Your task to perform on an android device: What's on my calendar today? Image 0: 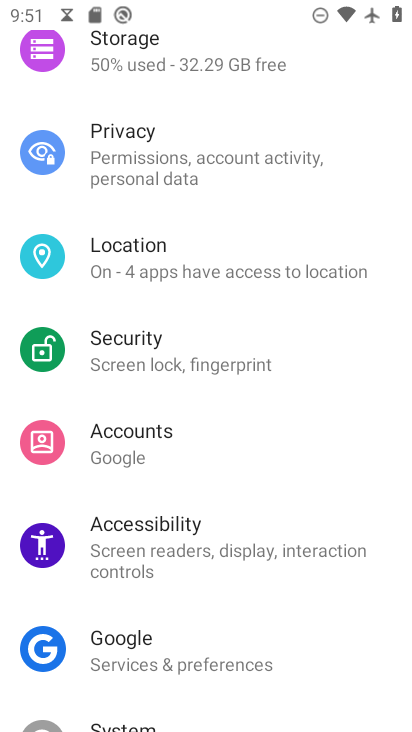
Step 0: press home button
Your task to perform on an android device: What's on my calendar today? Image 1: 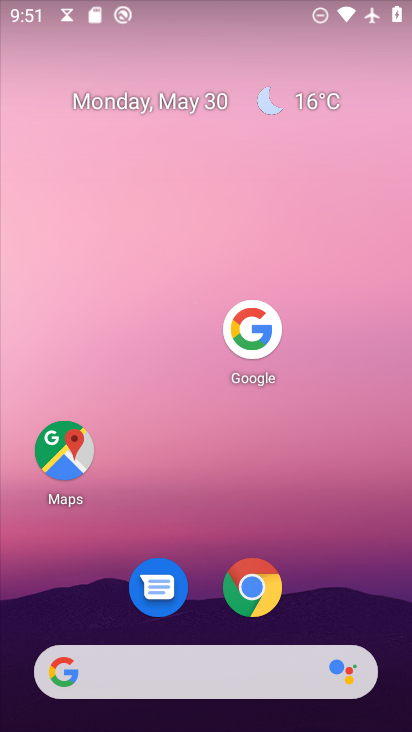
Step 1: drag from (176, 687) to (348, 67)
Your task to perform on an android device: What's on my calendar today? Image 2: 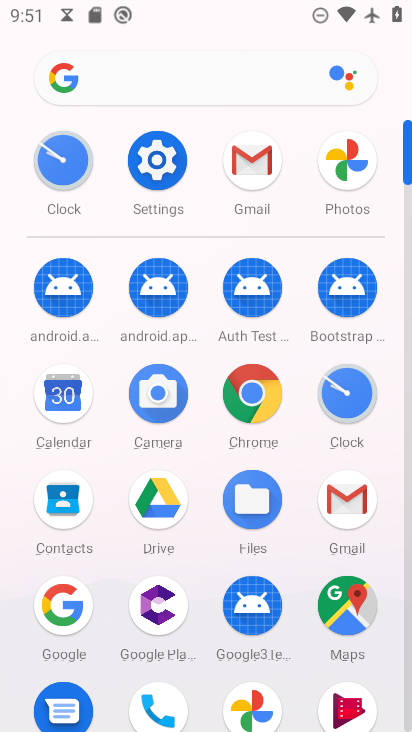
Step 2: click (67, 397)
Your task to perform on an android device: What's on my calendar today? Image 3: 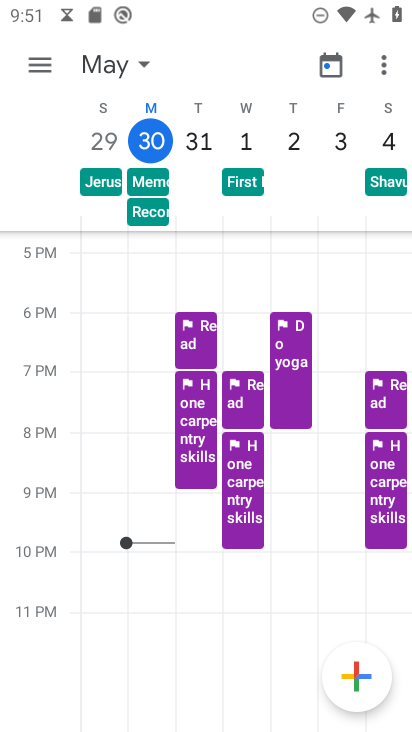
Step 3: click (109, 57)
Your task to perform on an android device: What's on my calendar today? Image 4: 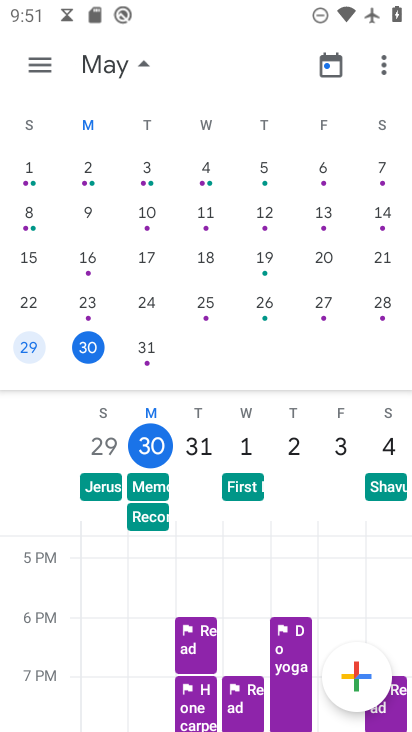
Step 4: click (96, 349)
Your task to perform on an android device: What's on my calendar today? Image 5: 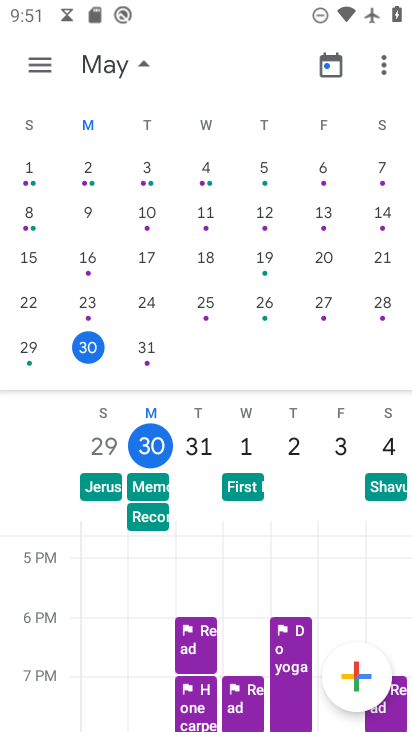
Step 5: click (34, 66)
Your task to perform on an android device: What's on my calendar today? Image 6: 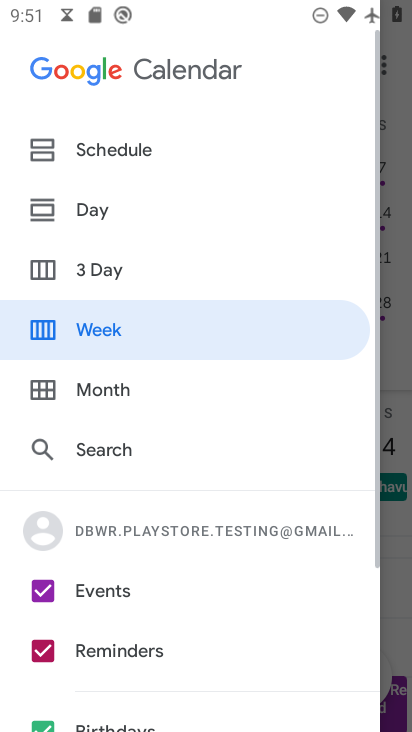
Step 6: click (83, 203)
Your task to perform on an android device: What's on my calendar today? Image 7: 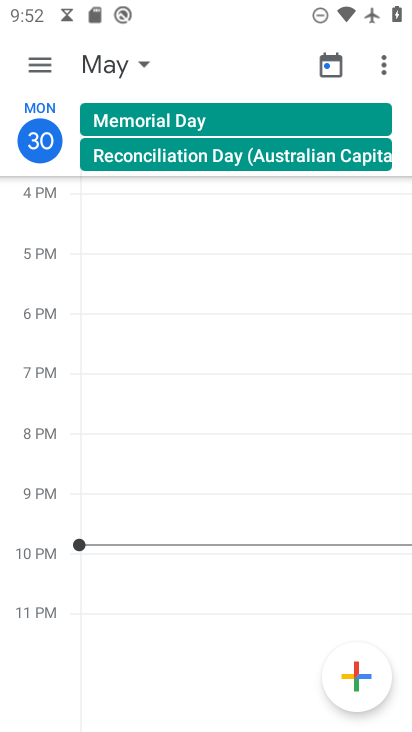
Step 7: click (41, 62)
Your task to perform on an android device: What's on my calendar today? Image 8: 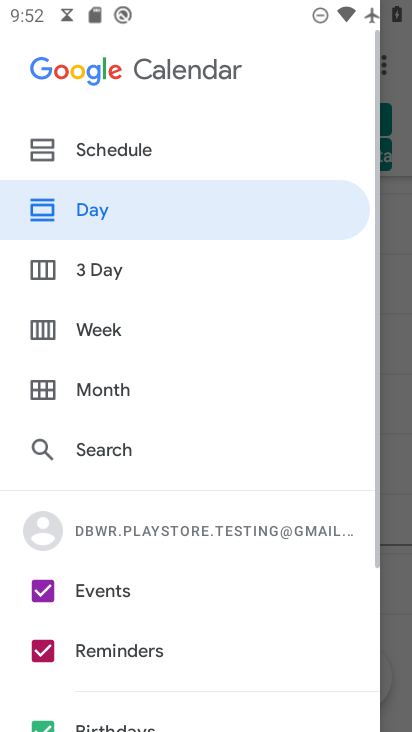
Step 8: click (141, 147)
Your task to perform on an android device: What's on my calendar today? Image 9: 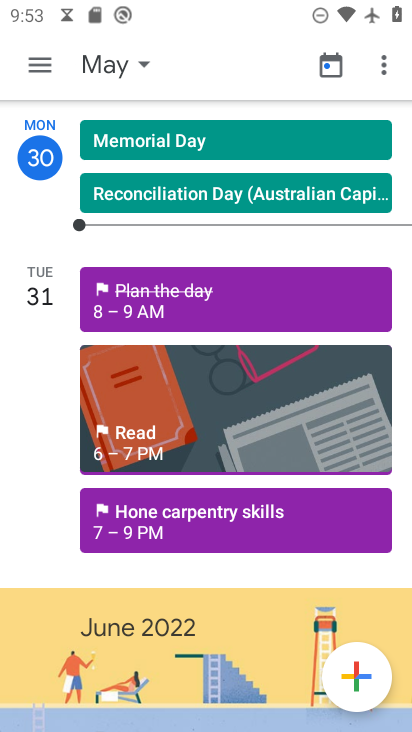
Step 9: task complete